Your task to perform on an android device: When is my next appointment? Image 0: 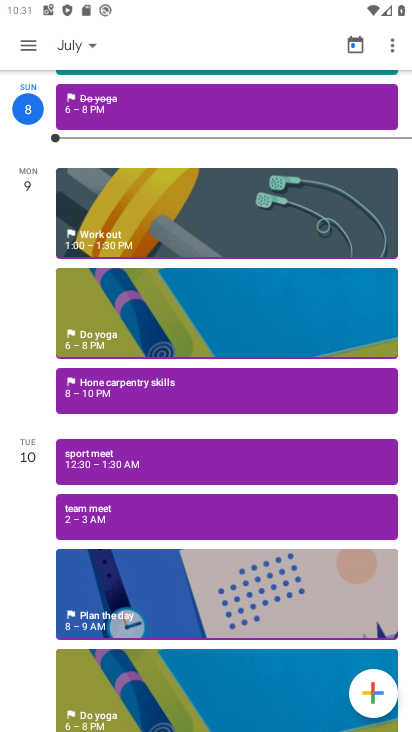
Step 0: click (27, 39)
Your task to perform on an android device: When is my next appointment? Image 1: 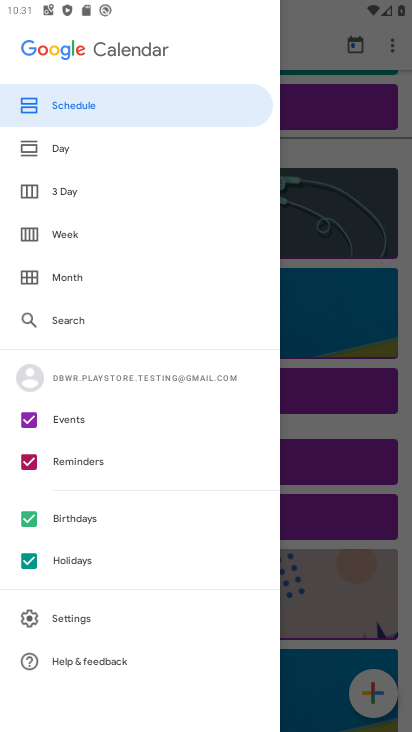
Step 1: click (126, 98)
Your task to perform on an android device: When is my next appointment? Image 2: 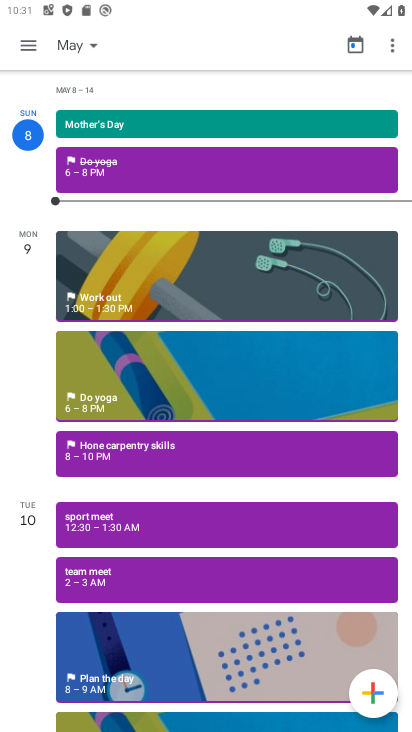
Step 2: task complete